Your task to perform on an android device: Check the weather Image 0: 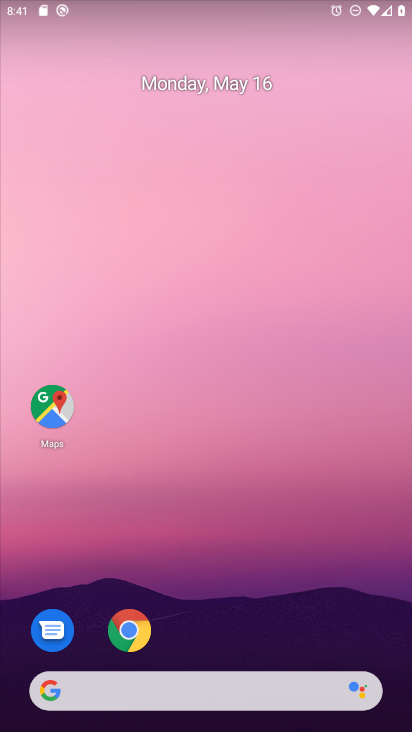
Step 0: click (241, 681)
Your task to perform on an android device: Check the weather Image 1: 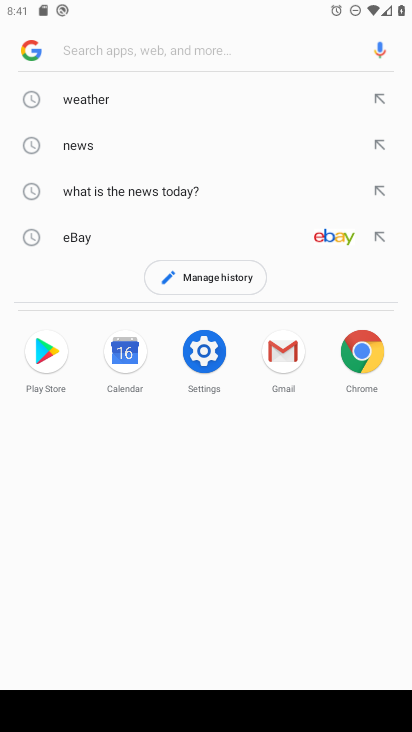
Step 1: click (96, 102)
Your task to perform on an android device: Check the weather Image 2: 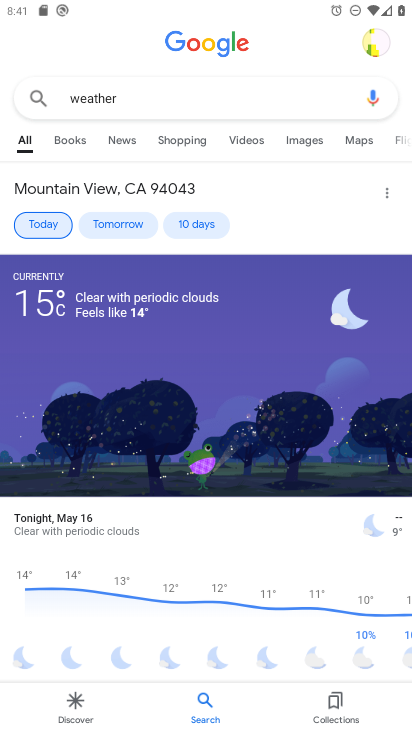
Step 2: click (192, 232)
Your task to perform on an android device: Check the weather Image 3: 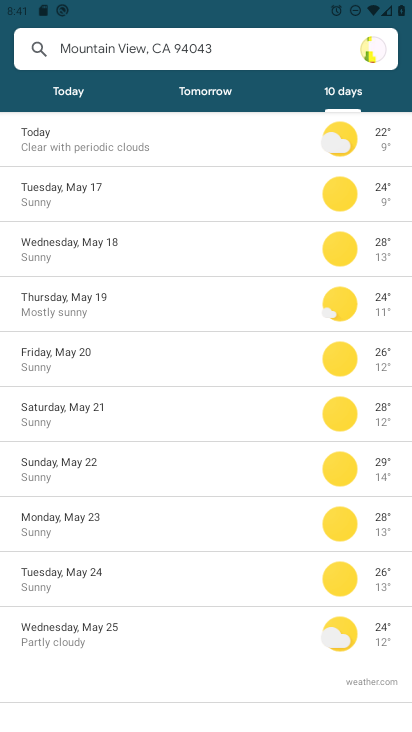
Step 3: task complete